Your task to perform on an android device: Open maps Image 0: 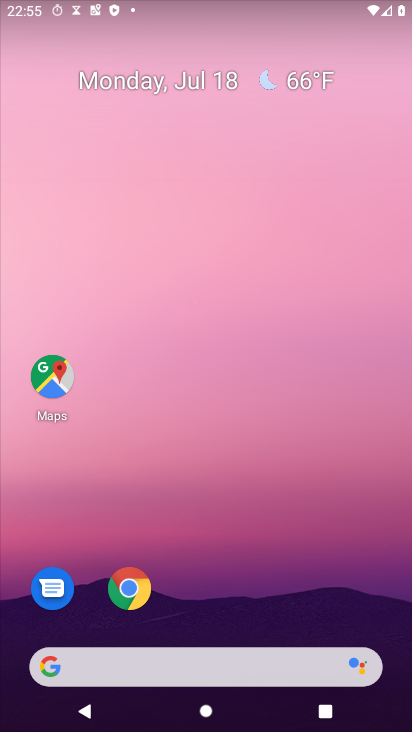
Step 0: click (57, 379)
Your task to perform on an android device: Open maps Image 1: 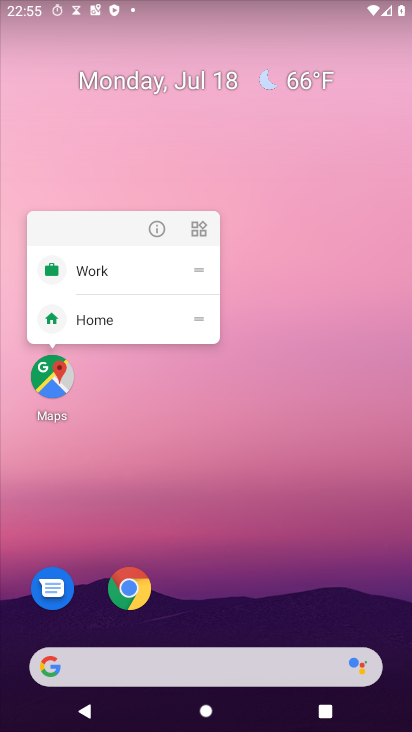
Step 1: click (57, 379)
Your task to perform on an android device: Open maps Image 2: 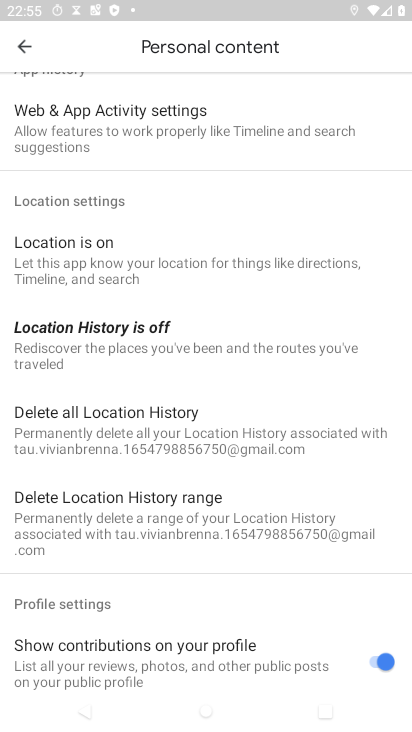
Step 2: click (29, 44)
Your task to perform on an android device: Open maps Image 3: 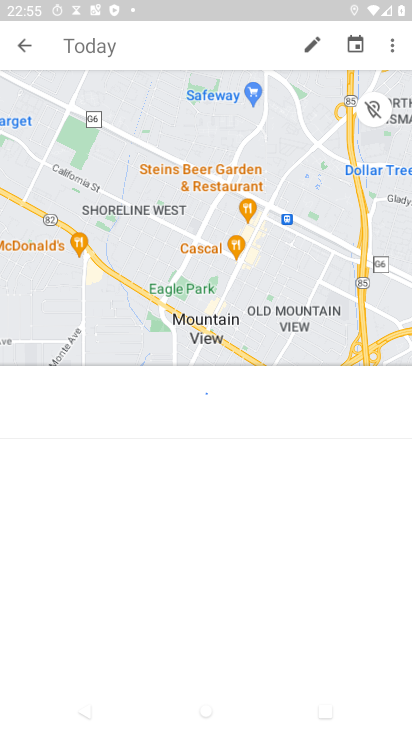
Step 3: click (29, 46)
Your task to perform on an android device: Open maps Image 4: 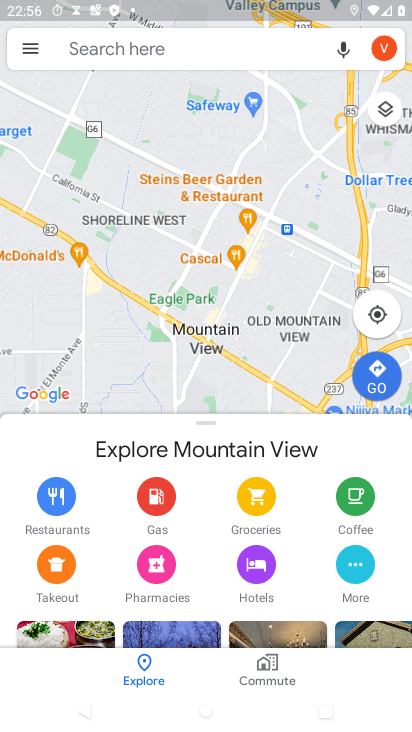
Step 4: task complete